Your task to perform on an android device: Show me the alarms in the clock app Image 0: 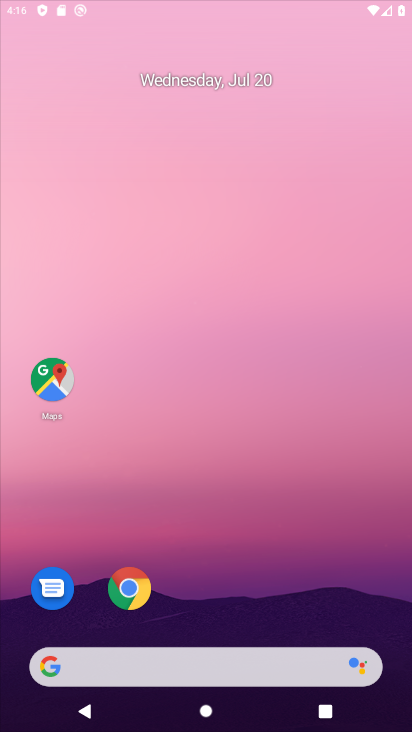
Step 0: press home button
Your task to perform on an android device: Show me the alarms in the clock app Image 1: 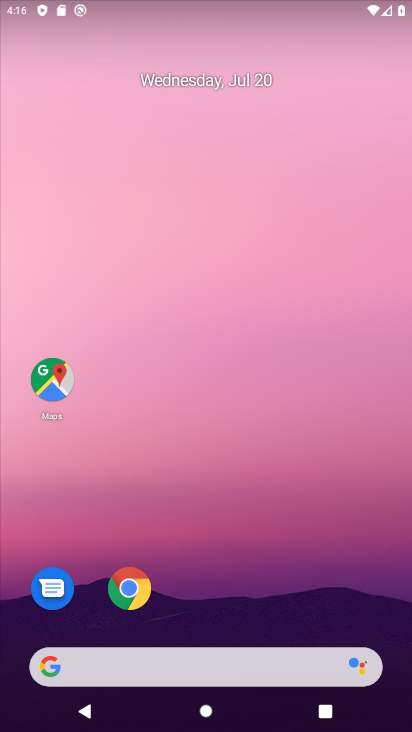
Step 1: drag from (211, 606) to (308, 212)
Your task to perform on an android device: Show me the alarms in the clock app Image 2: 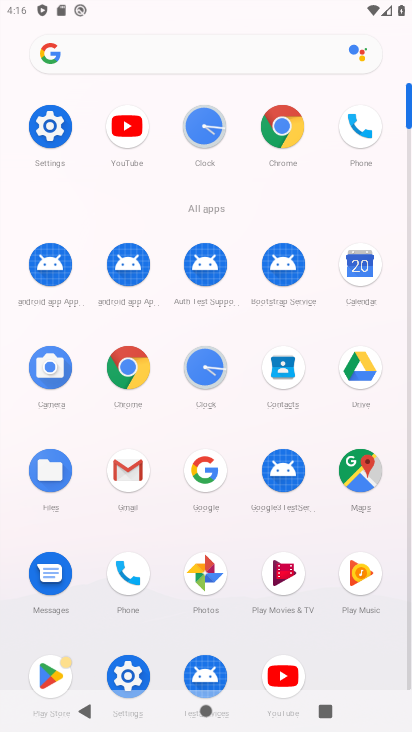
Step 2: click (200, 360)
Your task to perform on an android device: Show me the alarms in the clock app Image 3: 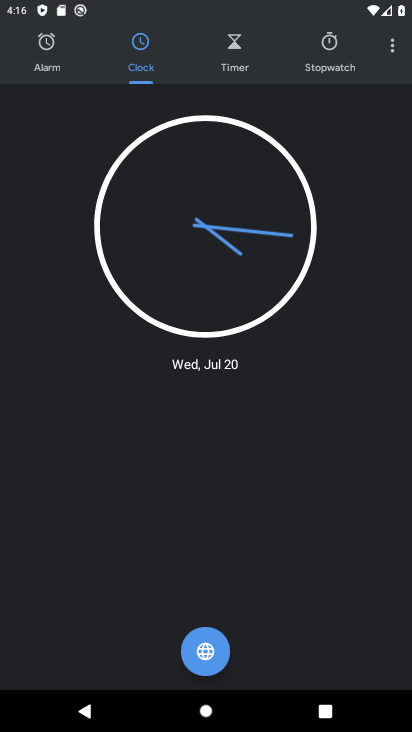
Step 3: click (42, 42)
Your task to perform on an android device: Show me the alarms in the clock app Image 4: 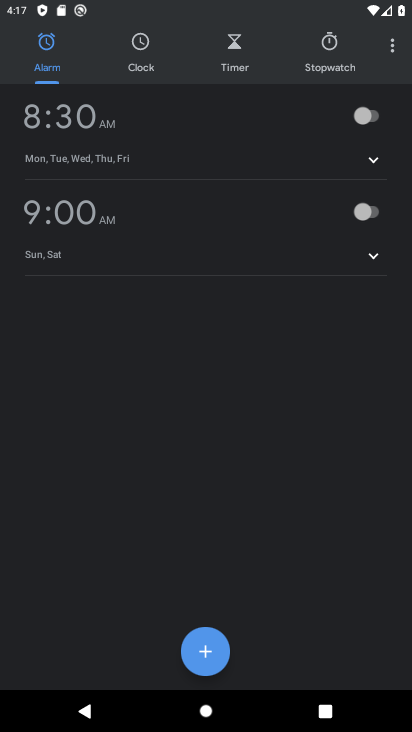
Step 4: task complete